Your task to perform on an android device: change notifications settings Image 0: 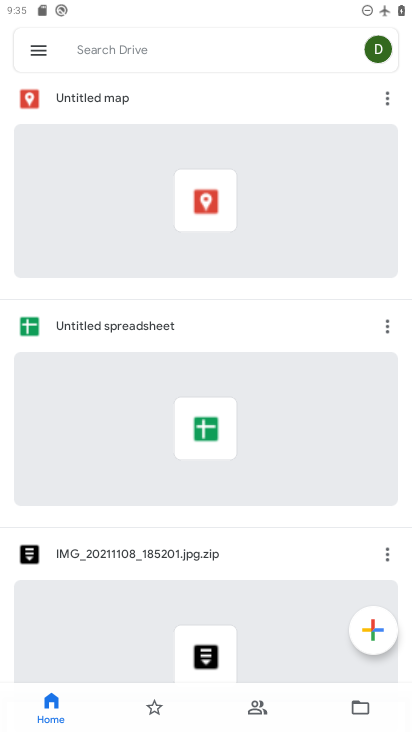
Step 0: press home button
Your task to perform on an android device: change notifications settings Image 1: 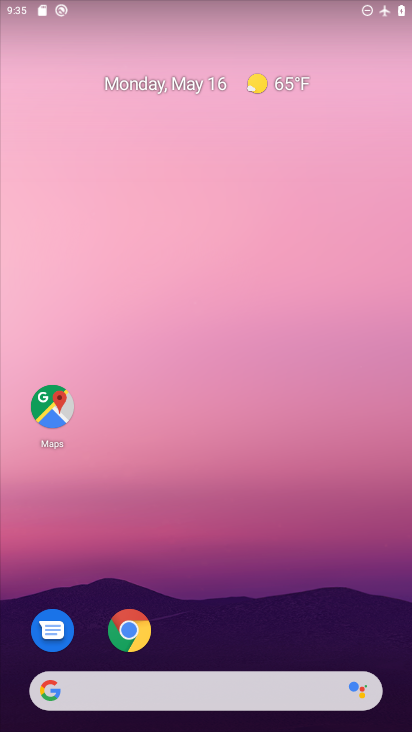
Step 1: drag from (208, 643) to (173, 234)
Your task to perform on an android device: change notifications settings Image 2: 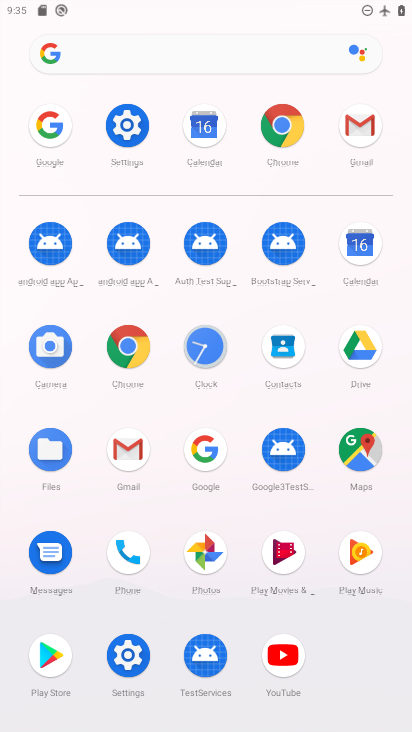
Step 2: click (128, 128)
Your task to perform on an android device: change notifications settings Image 3: 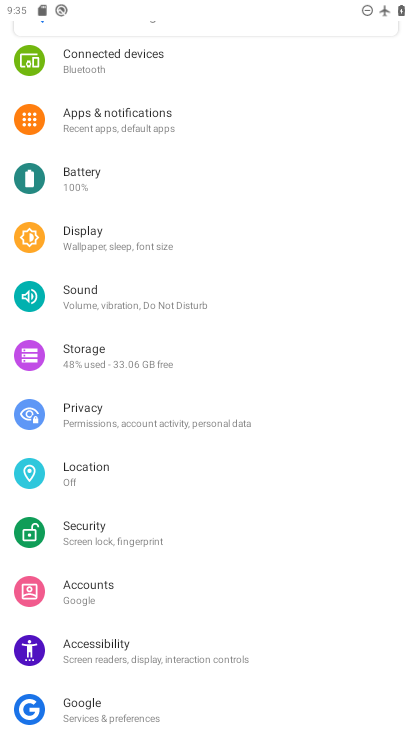
Step 3: click (124, 131)
Your task to perform on an android device: change notifications settings Image 4: 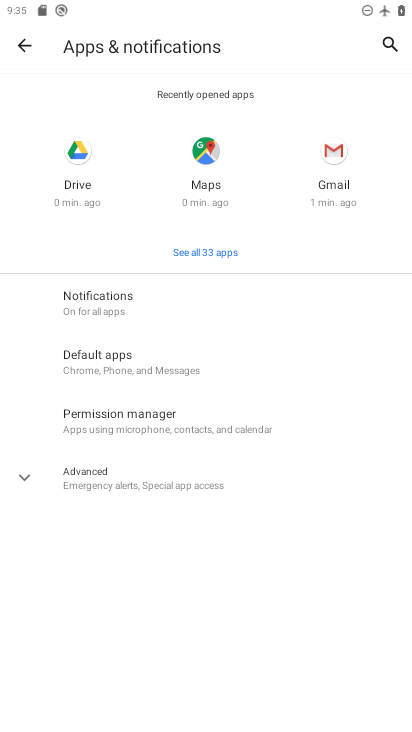
Step 4: click (126, 312)
Your task to perform on an android device: change notifications settings Image 5: 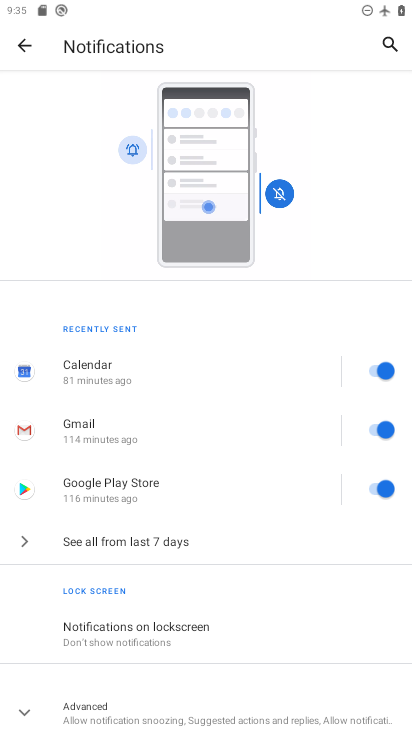
Step 5: drag from (136, 581) to (183, 282)
Your task to perform on an android device: change notifications settings Image 6: 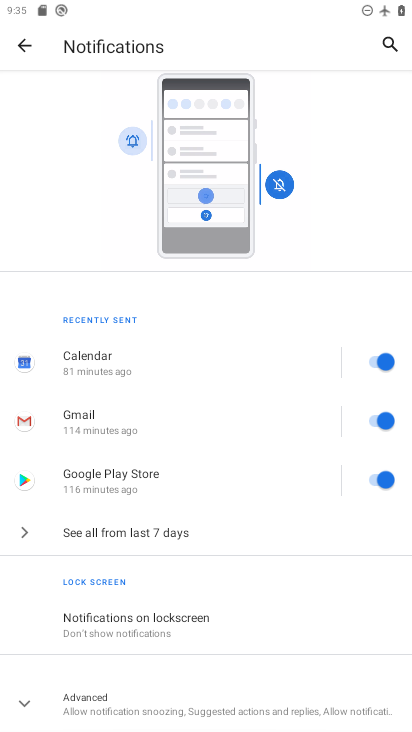
Step 6: click (172, 614)
Your task to perform on an android device: change notifications settings Image 7: 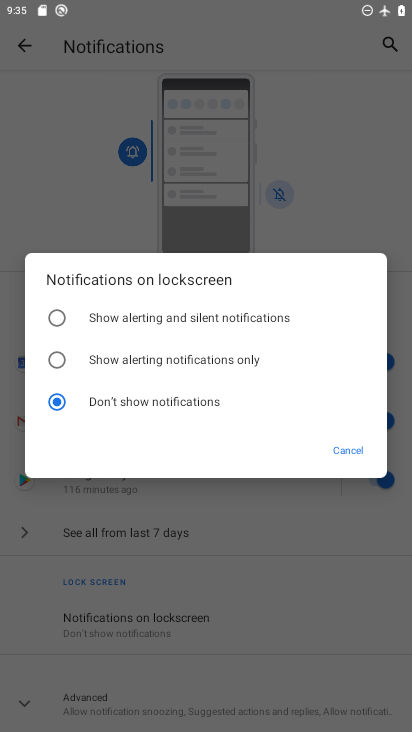
Step 7: click (195, 311)
Your task to perform on an android device: change notifications settings Image 8: 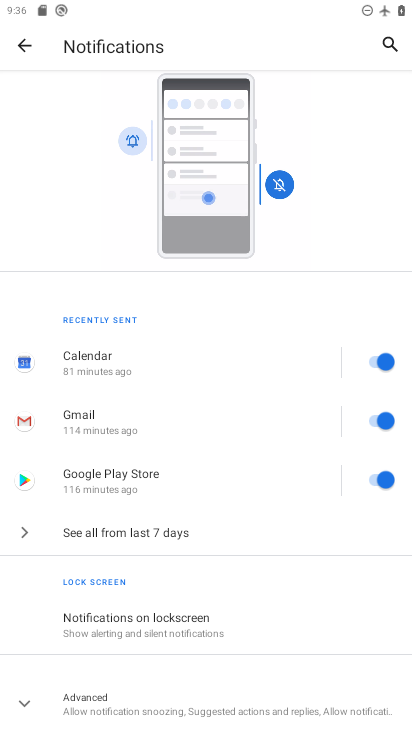
Step 8: task complete